Your task to perform on an android device: search for starred emails in the gmail app Image 0: 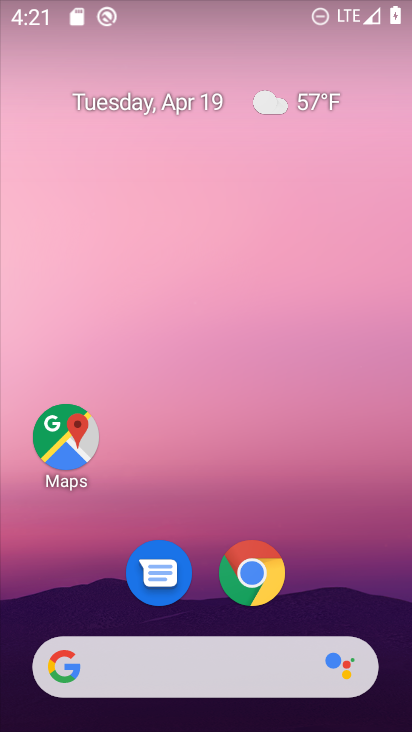
Step 0: drag from (354, 617) to (301, 2)
Your task to perform on an android device: search for starred emails in the gmail app Image 1: 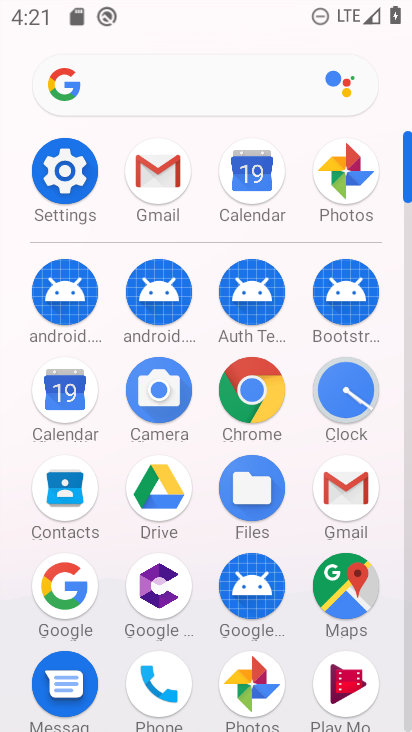
Step 1: click (153, 183)
Your task to perform on an android device: search for starred emails in the gmail app Image 2: 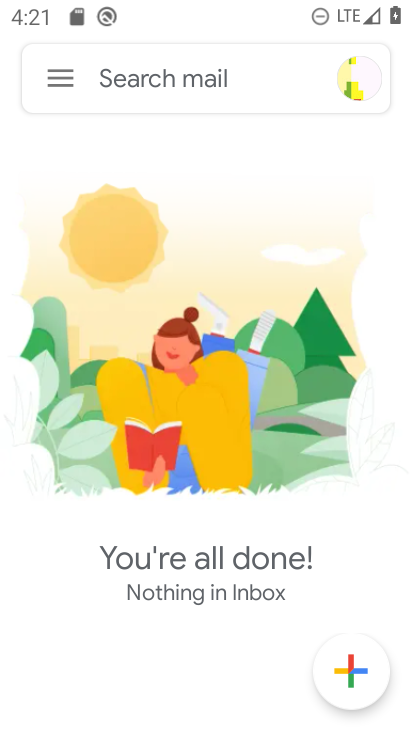
Step 2: click (64, 81)
Your task to perform on an android device: search for starred emails in the gmail app Image 3: 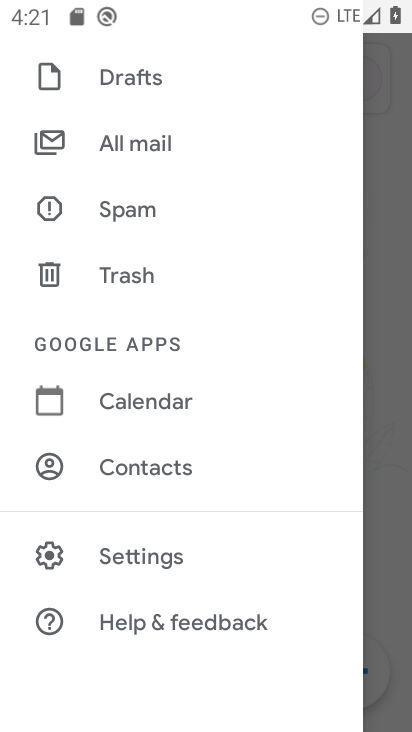
Step 3: drag from (214, 317) to (218, 594)
Your task to perform on an android device: search for starred emails in the gmail app Image 4: 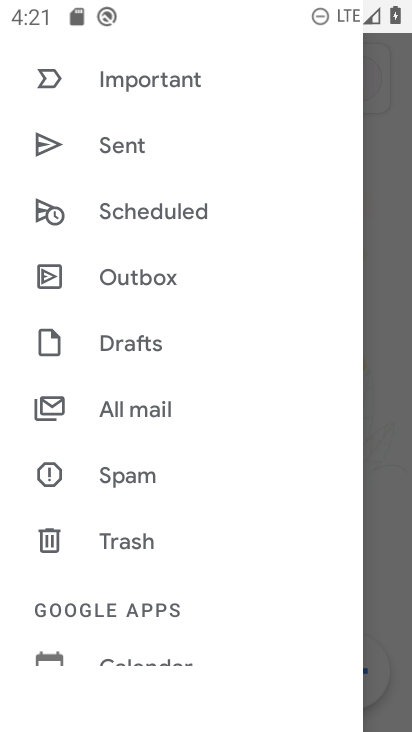
Step 4: drag from (214, 334) to (214, 581)
Your task to perform on an android device: search for starred emails in the gmail app Image 5: 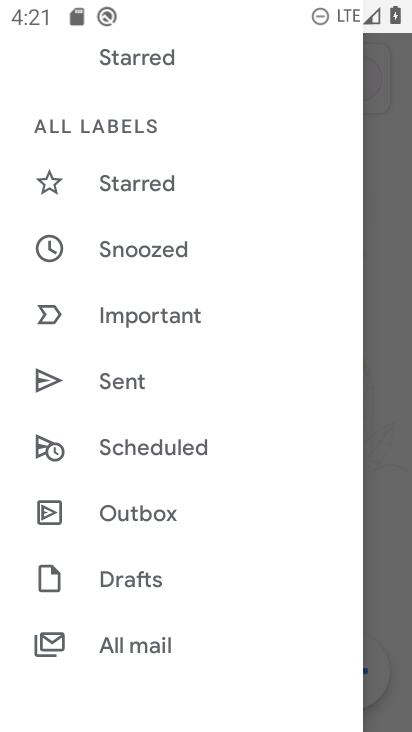
Step 5: click (118, 182)
Your task to perform on an android device: search for starred emails in the gmail app Image 6: 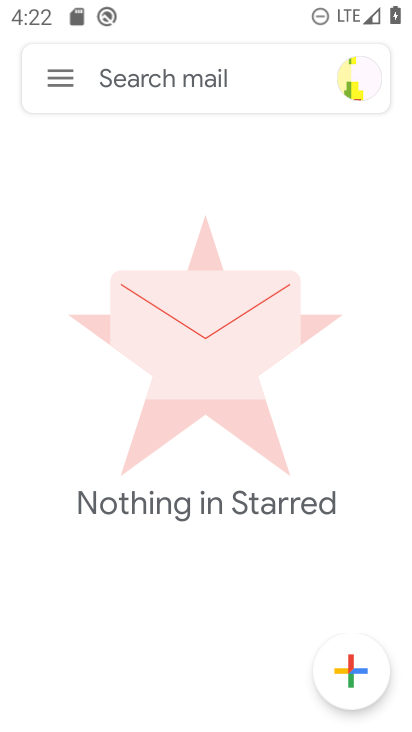
Step 6: task complete